Your task to perform on an android device: change the clock style Image 0: 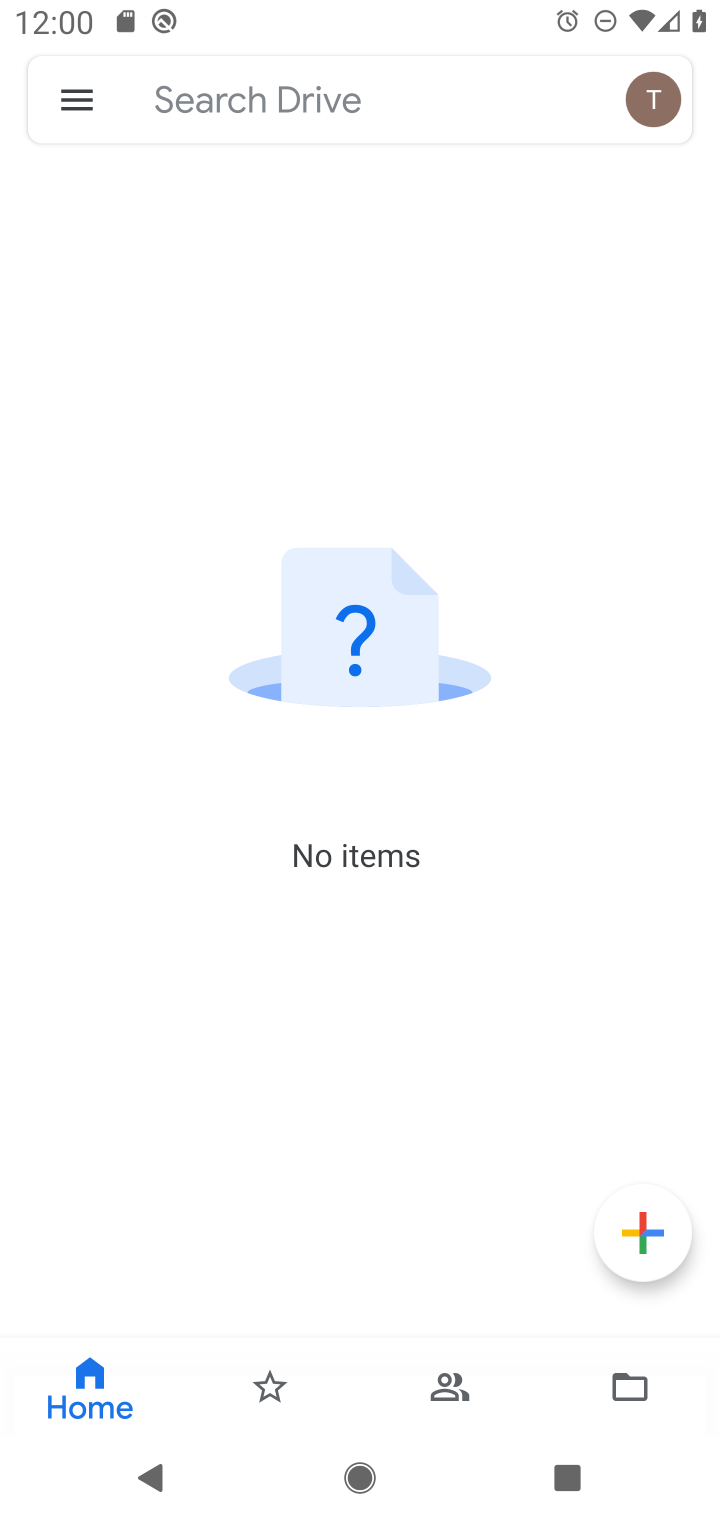
Step 0: press home button
Your task to perform on an android device: change the clock style Image 1: 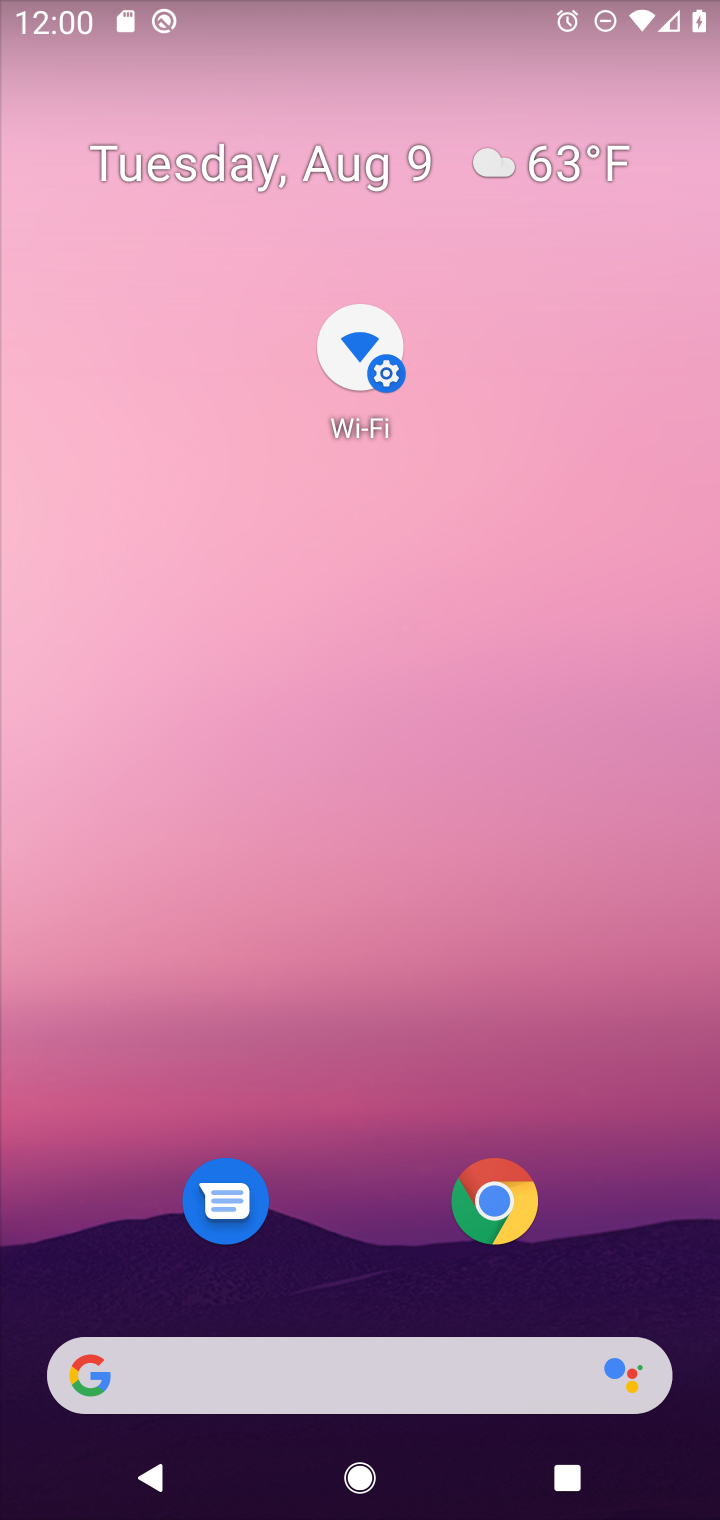
Step 1: drag from (610, 1257) to (659, 295)
Your task to perform on an android device: change the clock style Image 2: 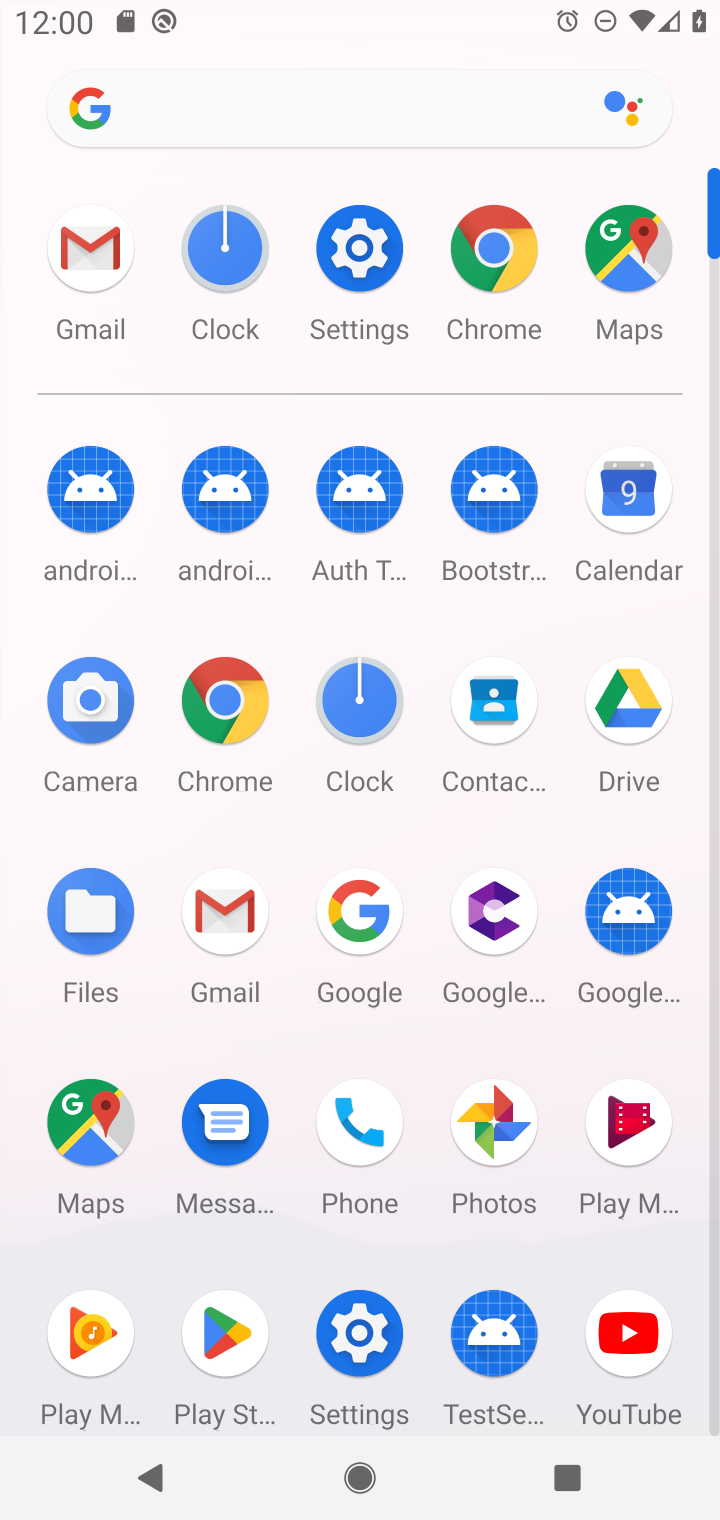
Step 2: click (361, 704)
Your task to perform on an android device: change the clock style Image 3: 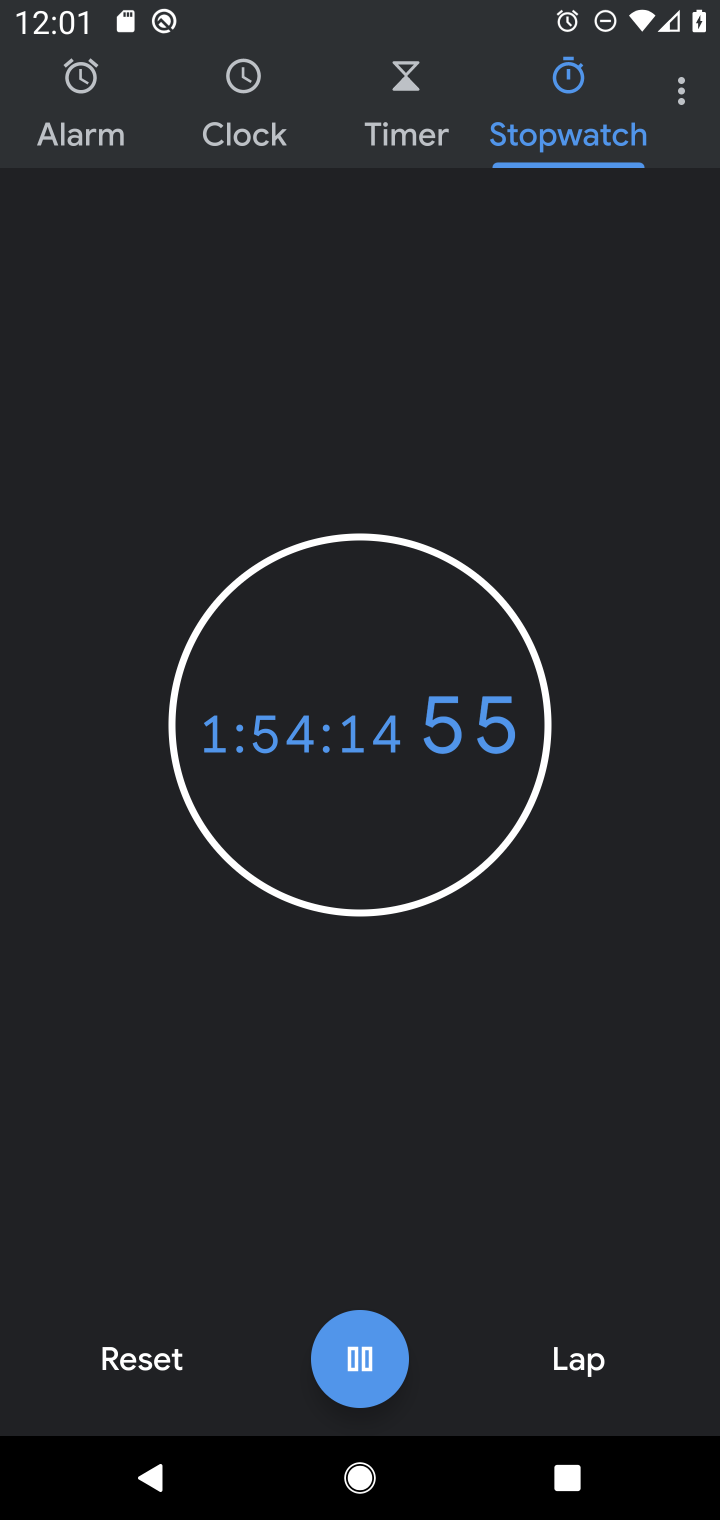
Step 3: click (680, 94)
Your task to perform on an android device: change the clock style Image 4: 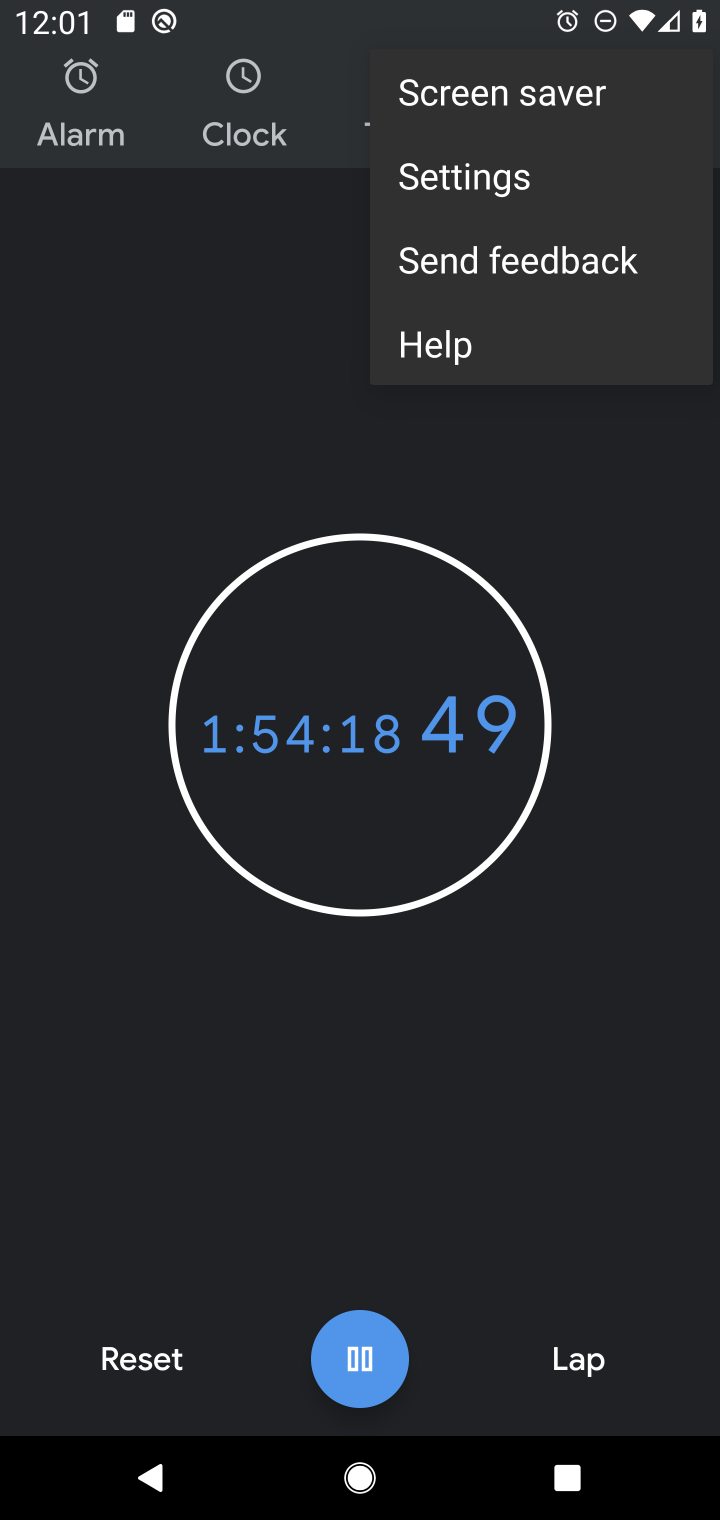
Step 4: click (503, 181)
Your task to perform on an android device: change the clock style Image 5: 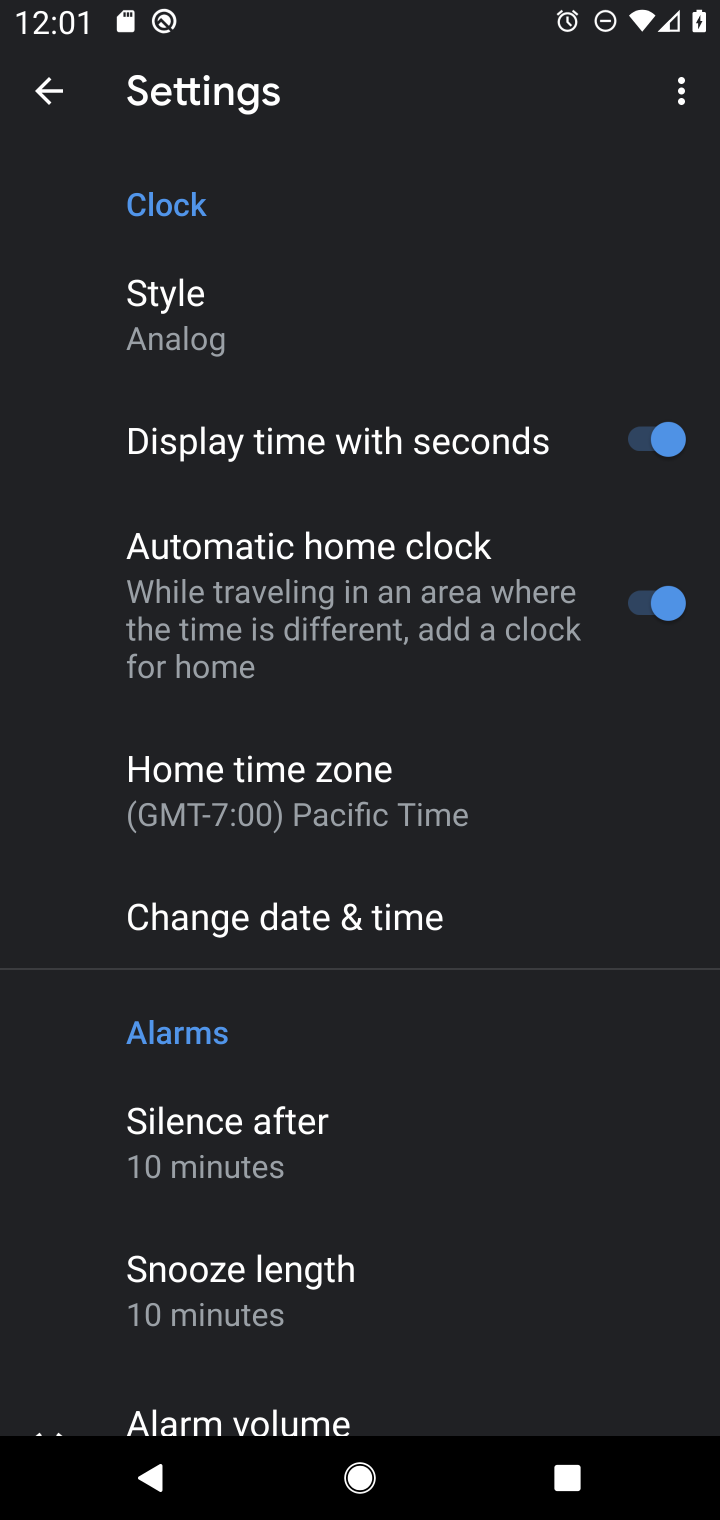
Step 5: drag from (532, 1058) to (555, 664)
Your task to perform on an android device: change the clock style Image 6: 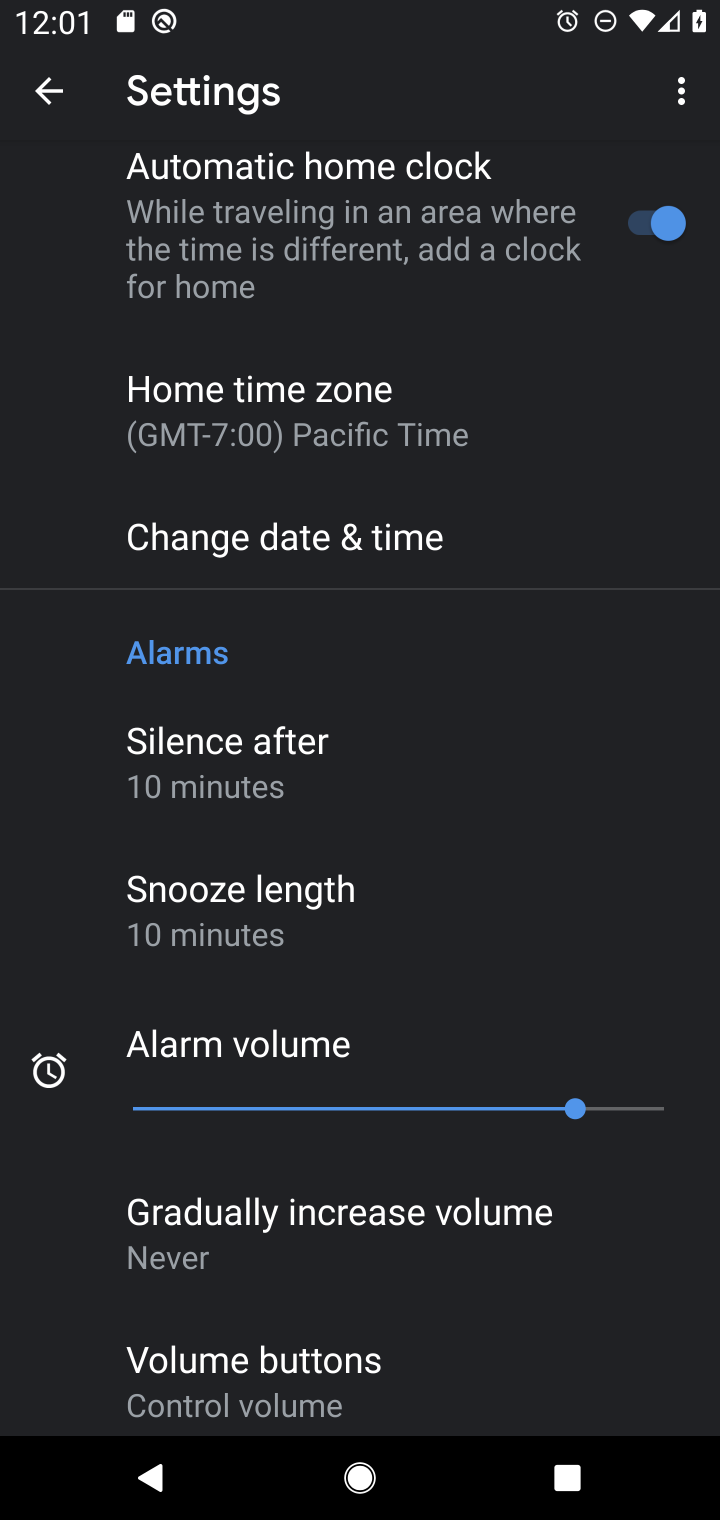
Step 6: drag from (531, 879) to (565, 463)
Your task to perform on an android device: change the clock style Image 7: 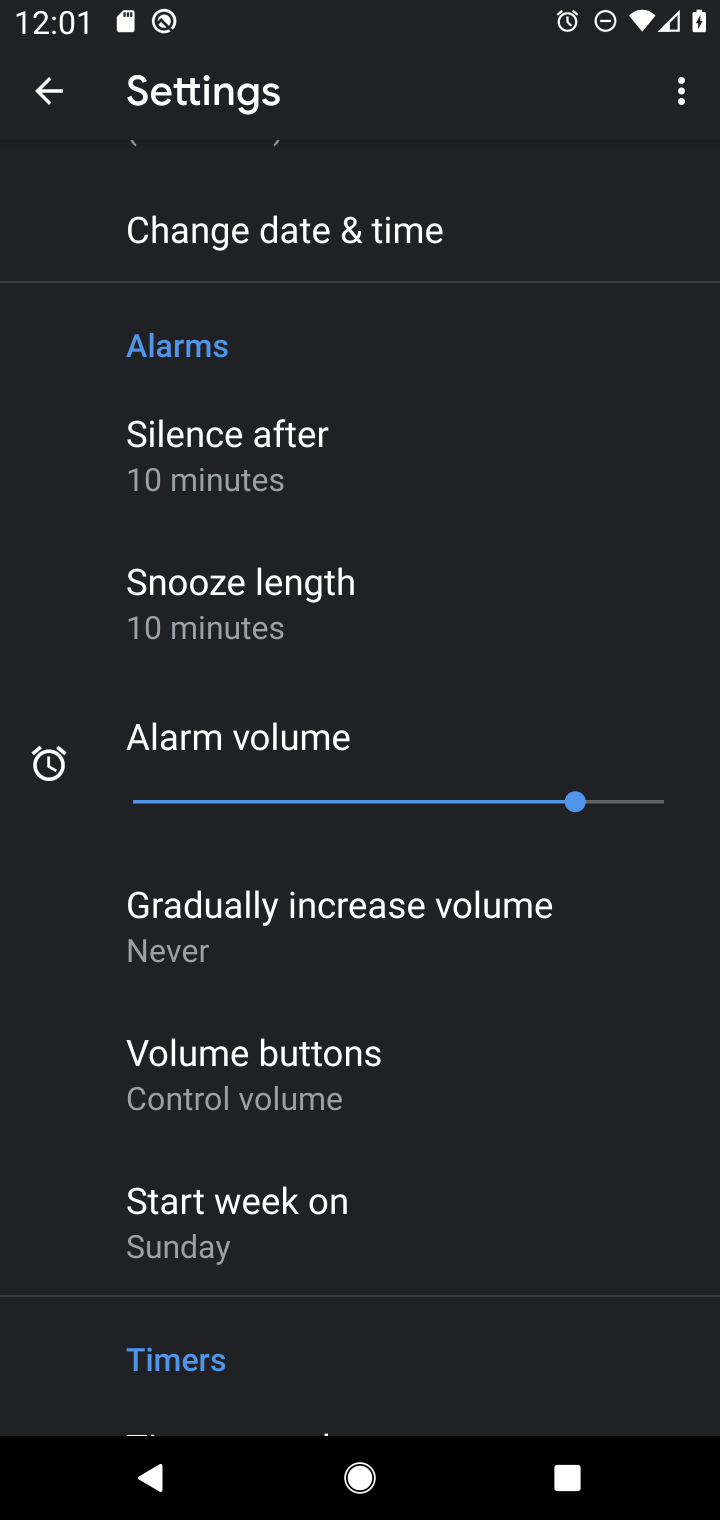
Step 7: drag from (600, 1070) to (620, 490)
Your task to perform on an android device: change the clock style Image 8: 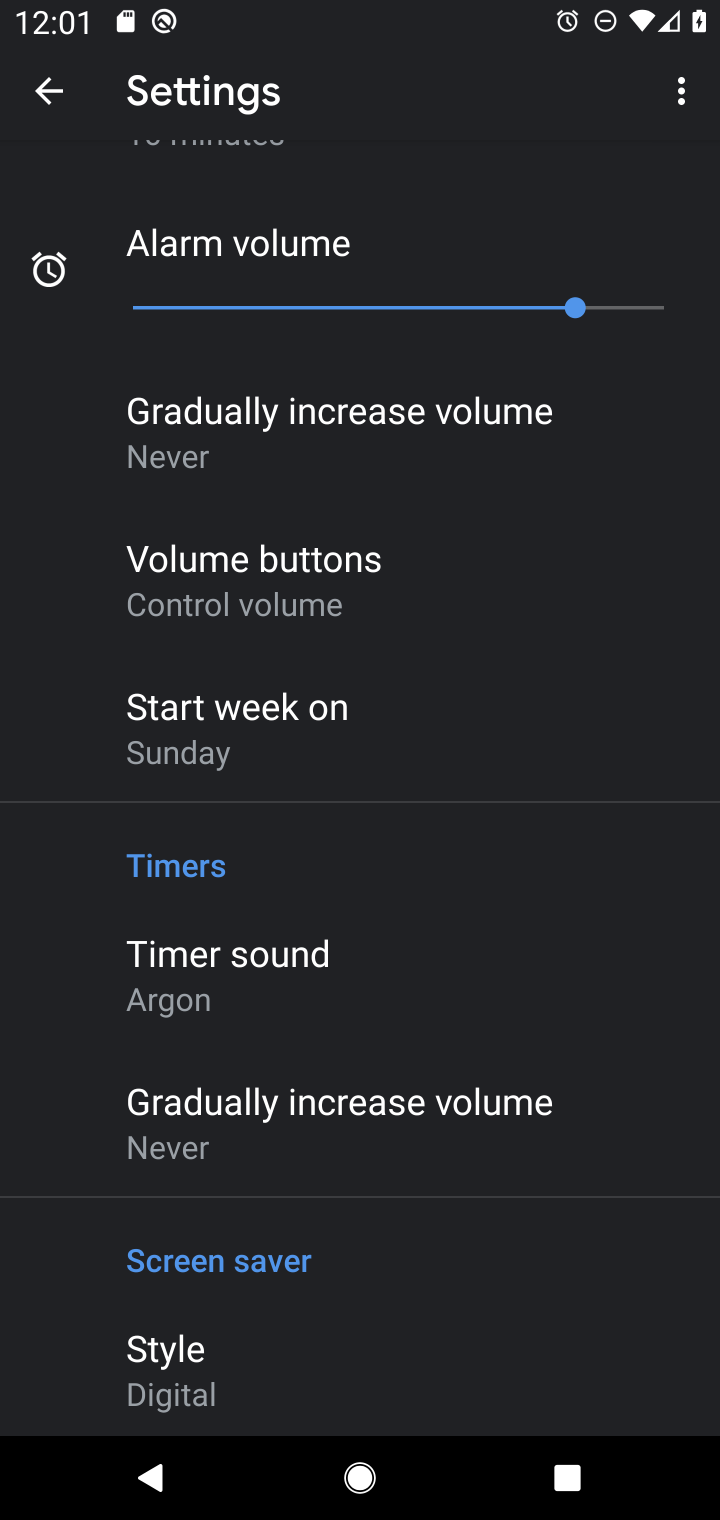
Step 8: drag from (608, 457) to (599, 982)
Your task to perform on an android device: change the clock style Image 9: 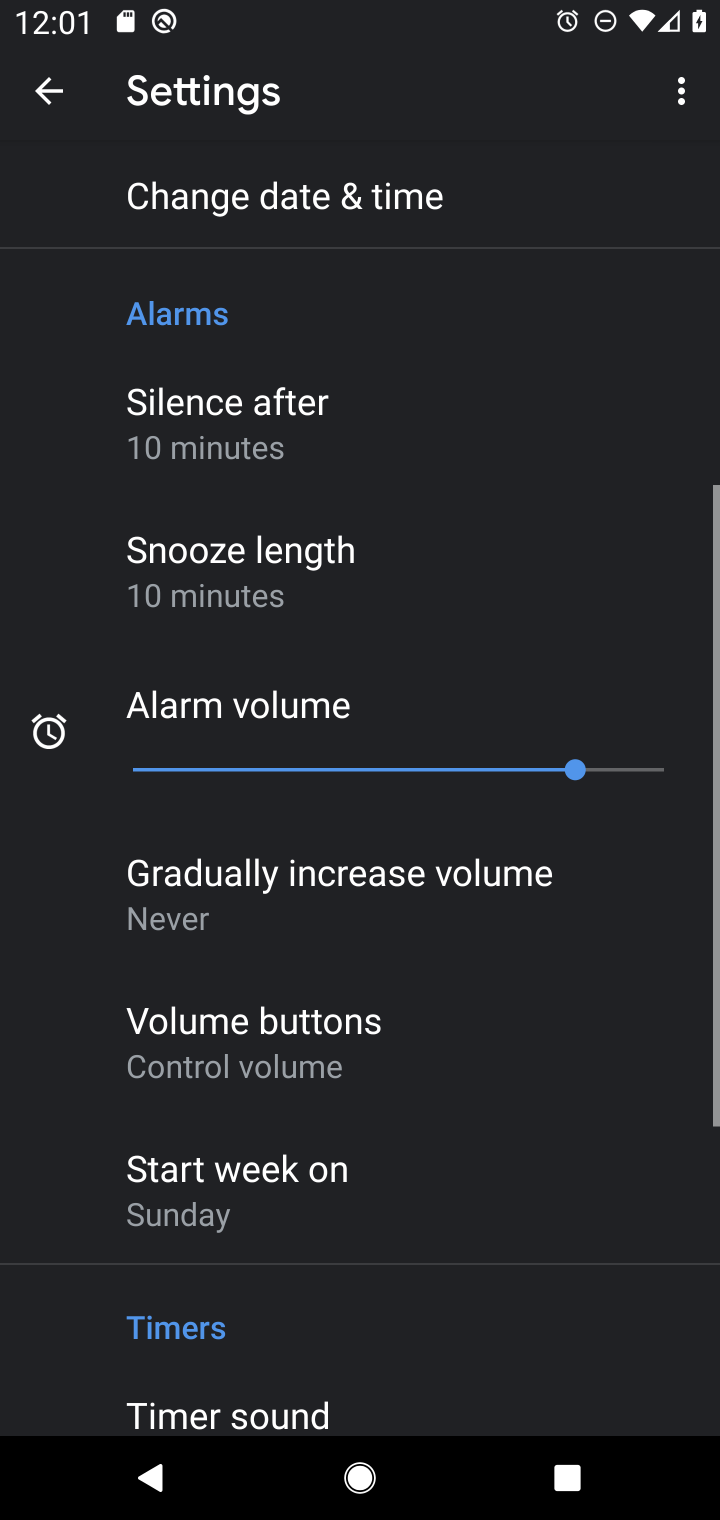
Step 9: drag from (606, 495) to (640, 807)
Your task to perform on an android device: change the clock style Image 10: 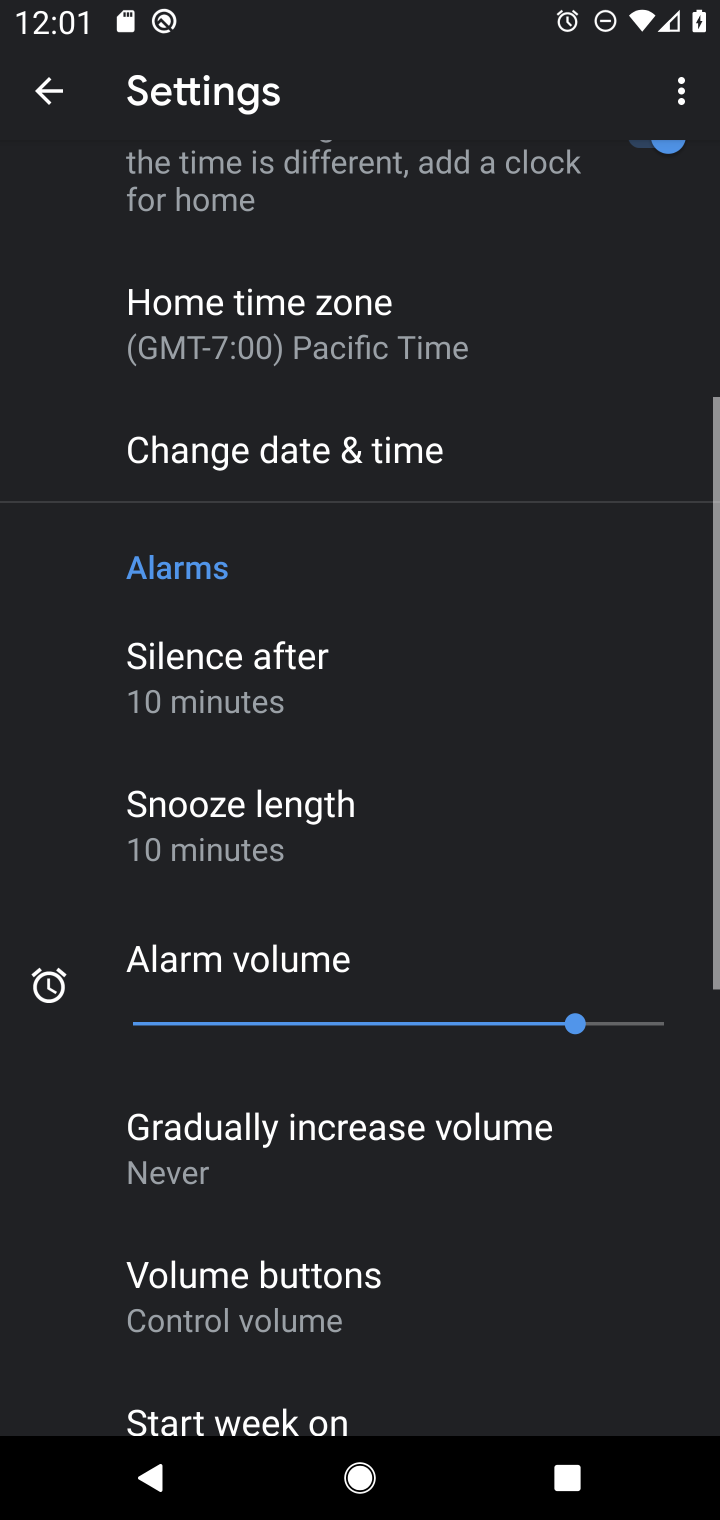
Step 10: drag from (616, 282) to (634, 618)
Your task to perform on an android device: change the clock style Image 11: 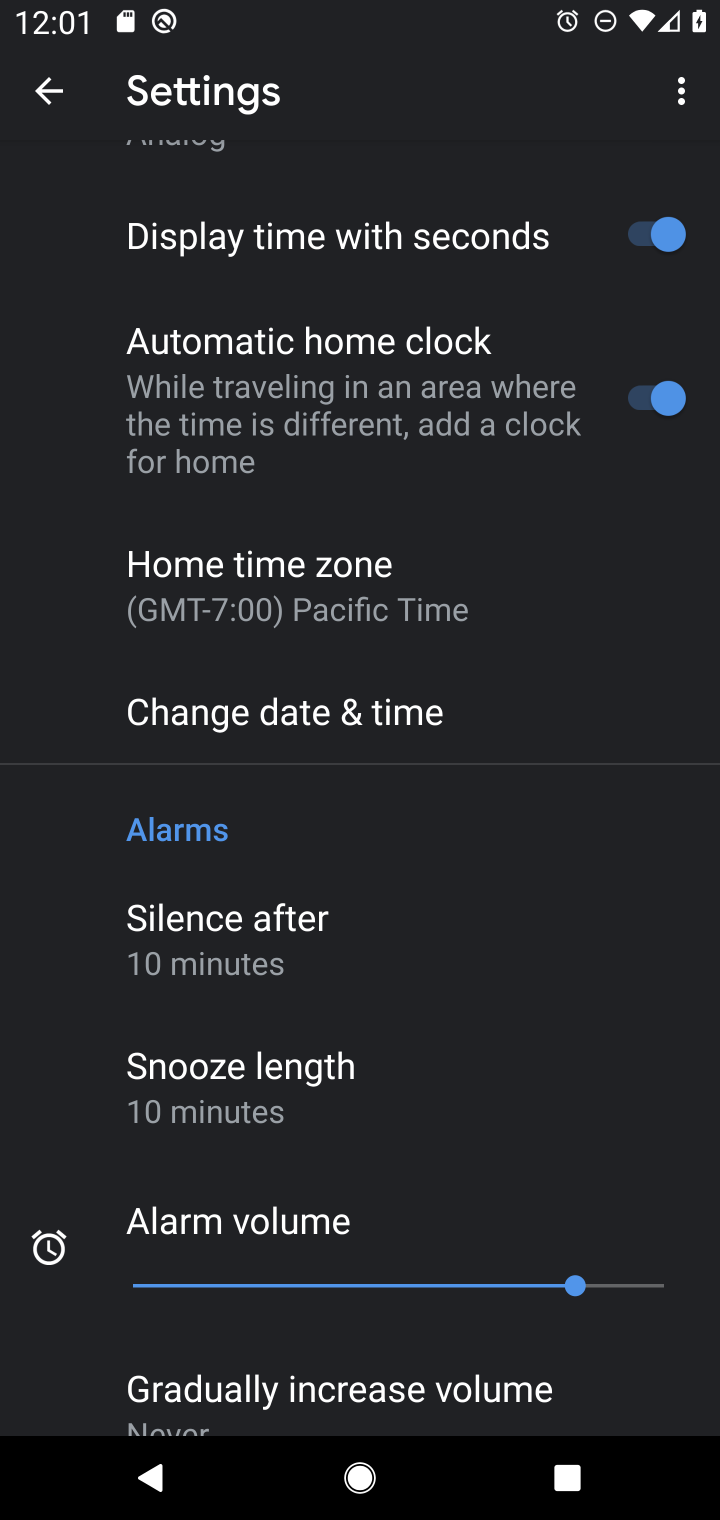
Step 11: drag from (556, 142) to (584, 471)
Your task to perform on an android device: change the clock style Image 12: 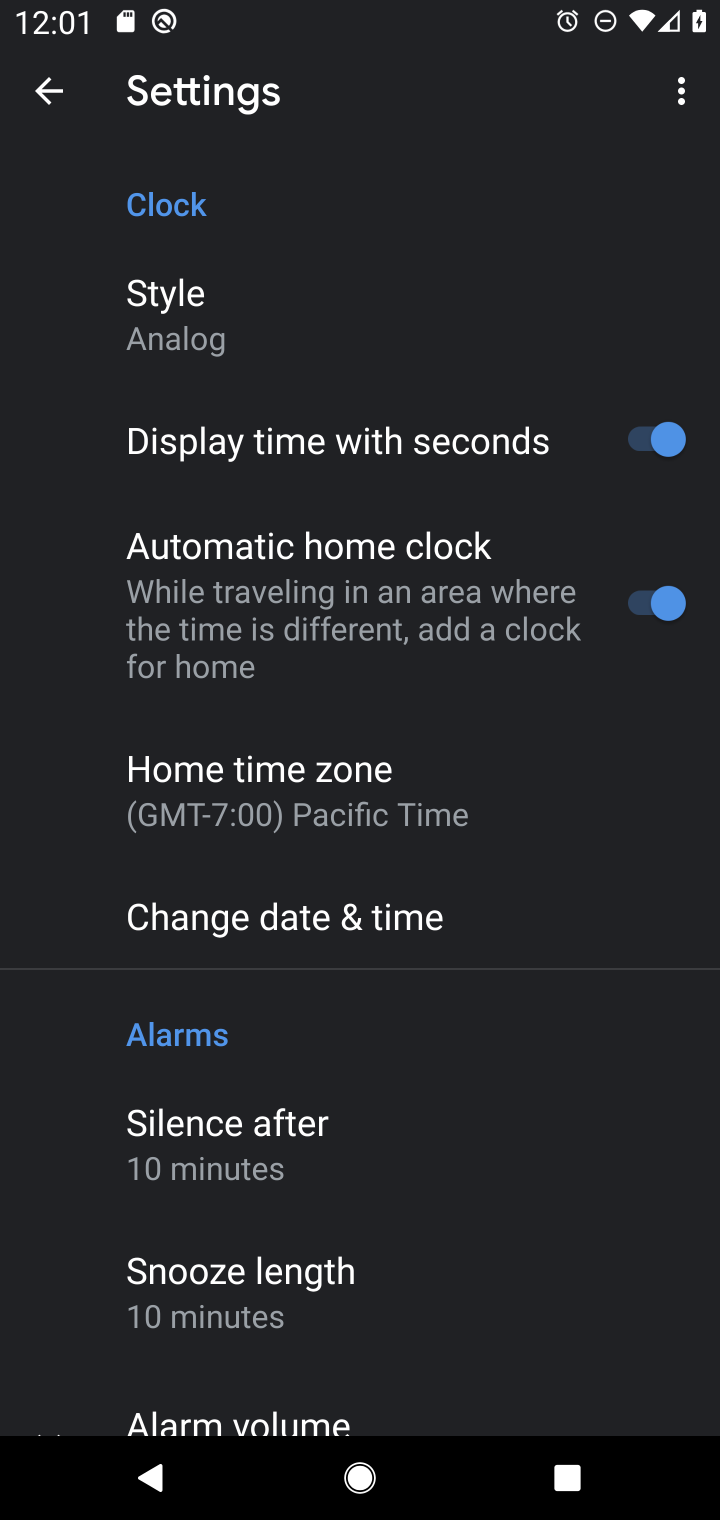
Step 12: click (255, 316)
Your task to perform on an android device: change the clock style Image 13: 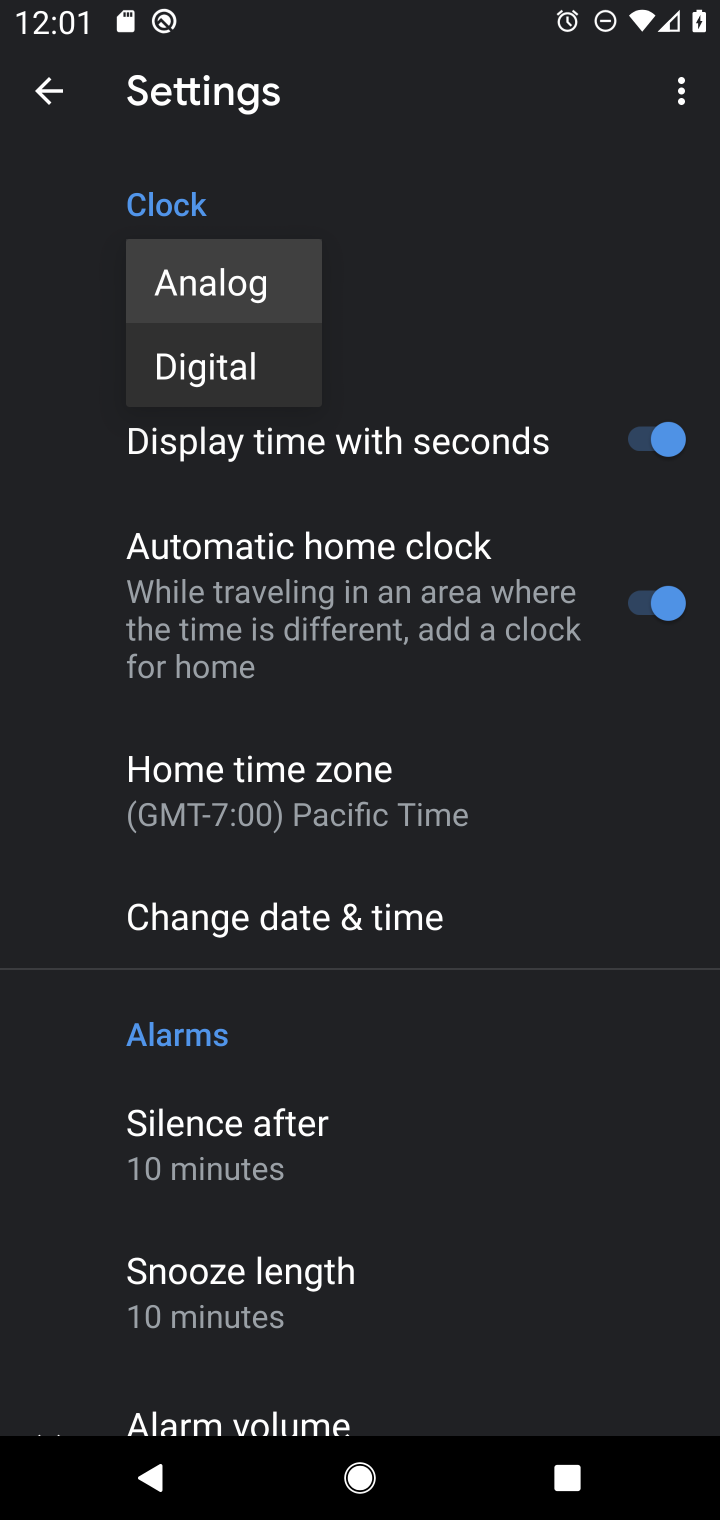
Step 13: click (244, 369)
Your task to perform on an android device: change the clock style Image 14: 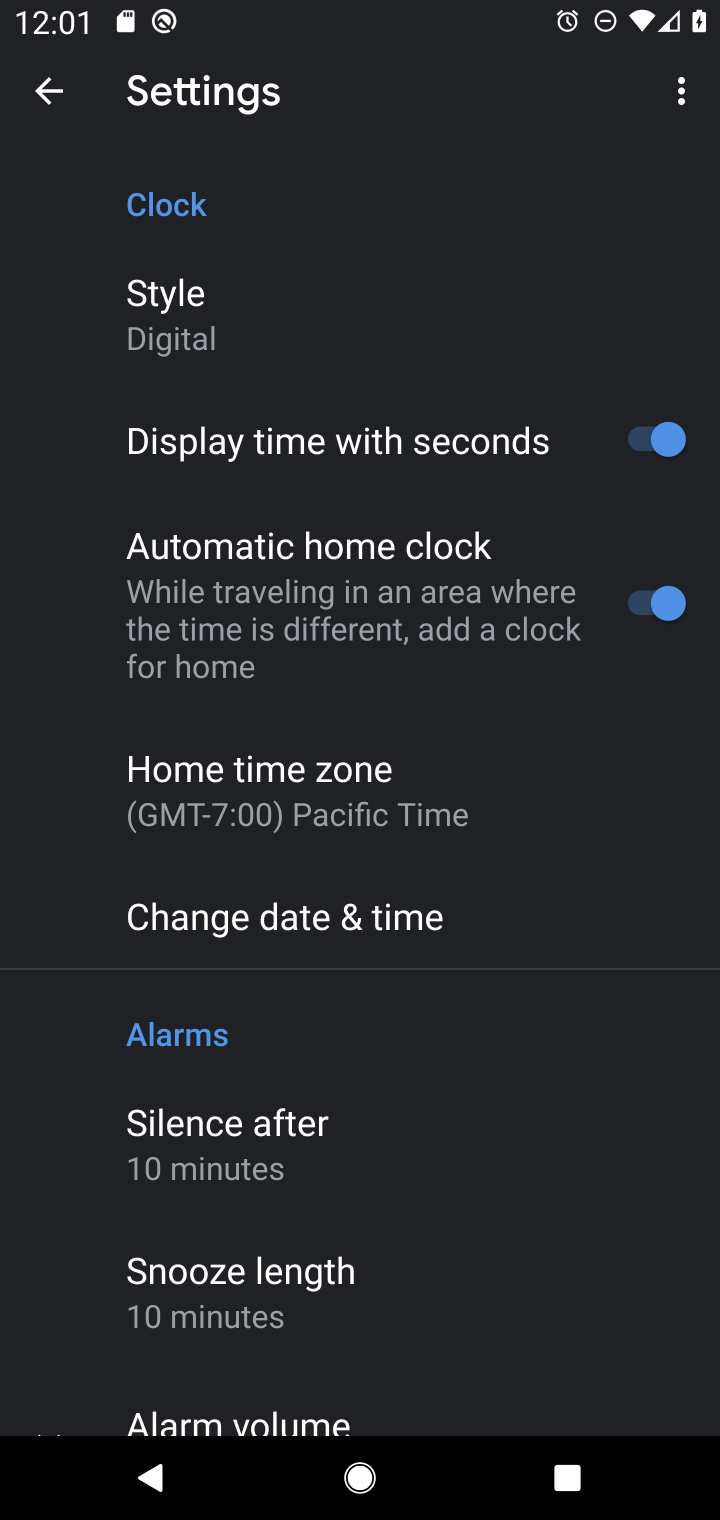
Step 14: task complete